Your task to perform on an android device: turn on priority inbox in the gmail app Image 0: 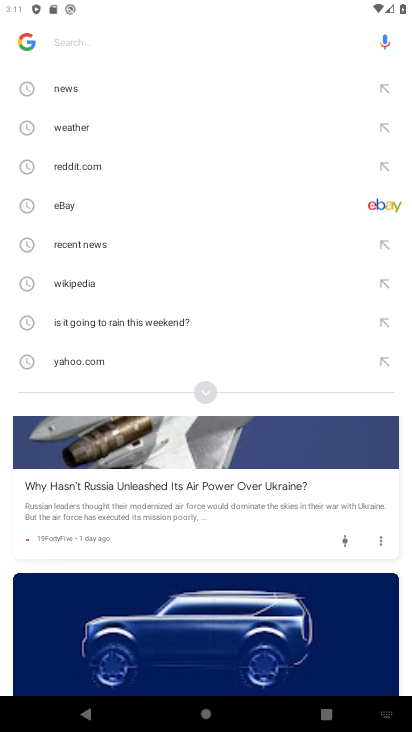
Step 0: click (229, 511)
Your task to perform on an android device: turn on priority inbox in the gmail app Image 1: 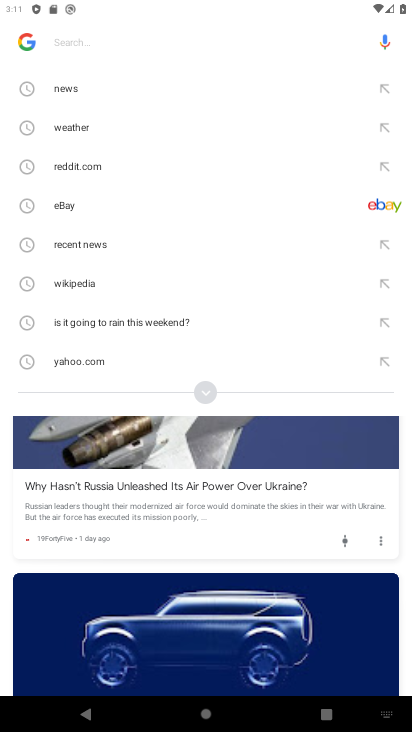
Step 1: click (229, 511)
Your task to perform on an android device: turn on priority inbox in the gmail app Image 2: 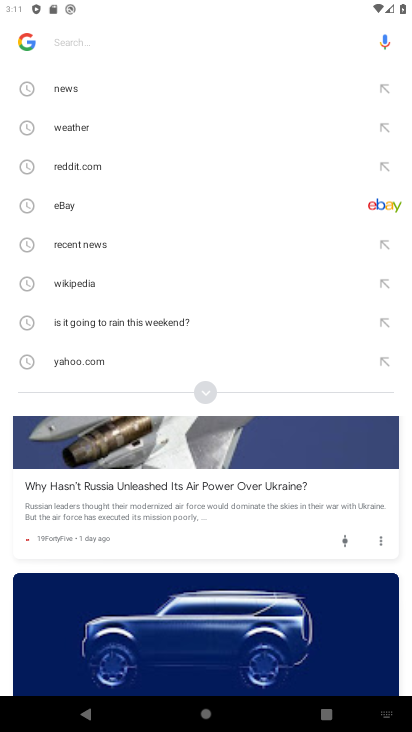
Step 2: click (229, 511)
Your task to perform on an android device: turn on priority inbox in the gmail app Image 3: 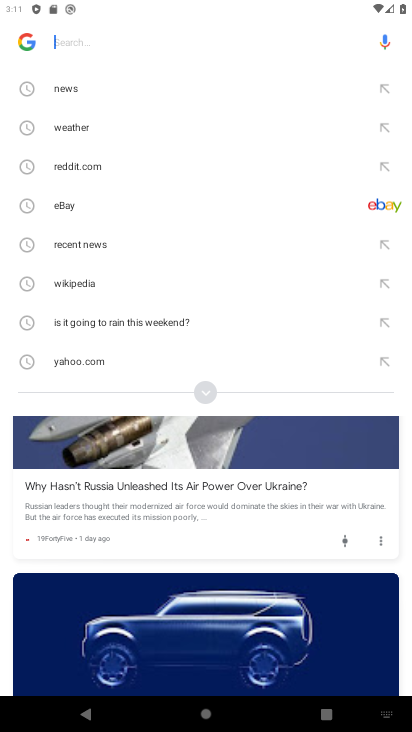
Step 3: click (229, 511)
Your task to perform on an android device: turn on priority inbox in the gmail app Image 4: 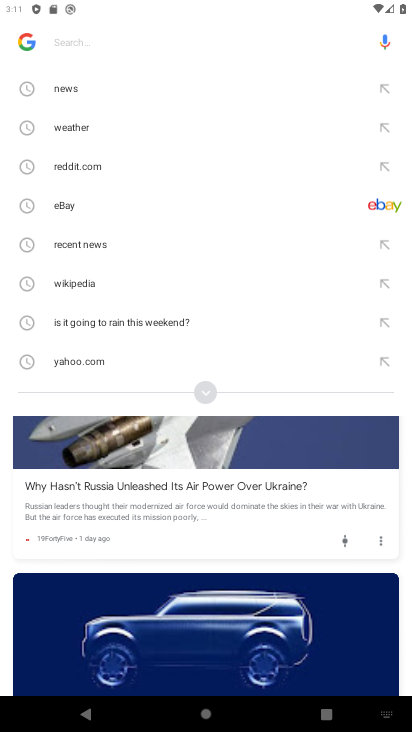
Step 4: press home button
Your task to perform on an android device: turn on priority inbox in the gmail app Image 5: 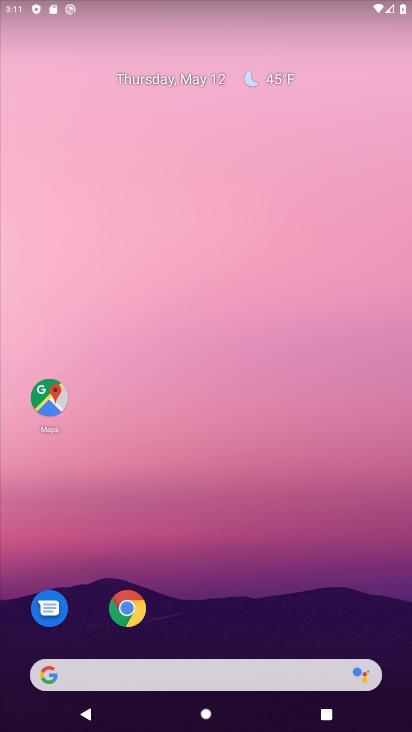
Step 5: drag from (209, 635) to (182, 160)
Your task to perform on an android device: turn on priority inbox in the gmail app Image 6: 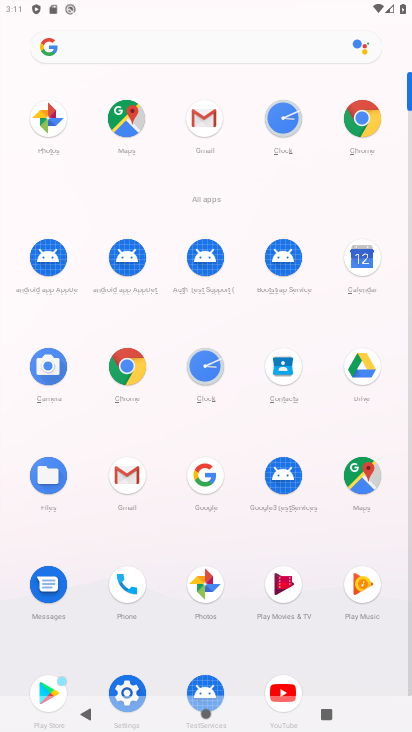
Step 6: click (203, 134)
Your task to perform on an android device: turn on priority inbox in the gmail app Image 7: 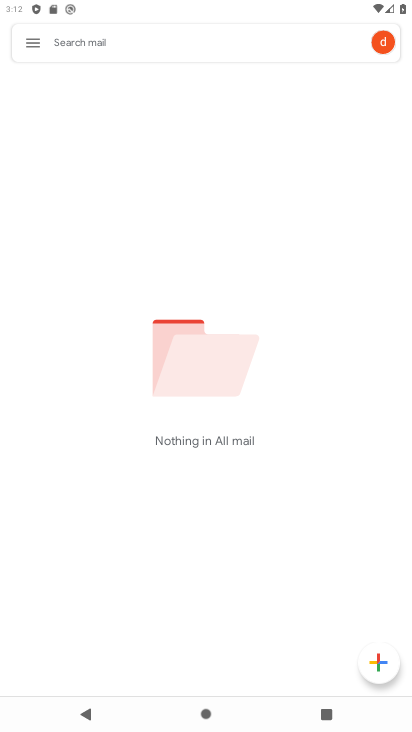
Step 7: click (203, 134)
Your task to perform on an android device: turn on priority inbox in the gmail app Image 8: 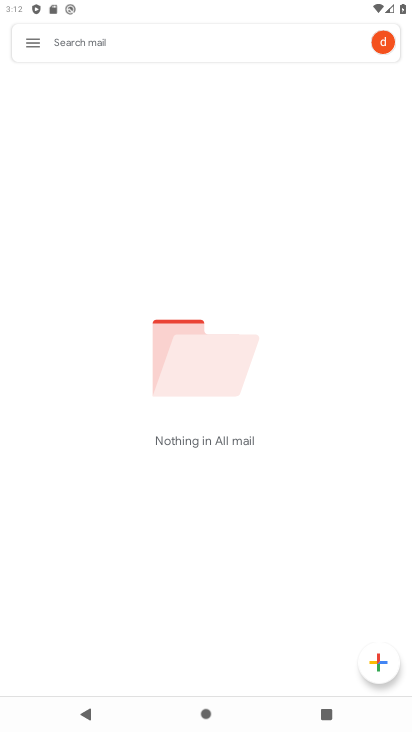
Step 8: click (43, 51)
Your task to perform on an android device: turn on priority inbox in the gmail app Image 9: 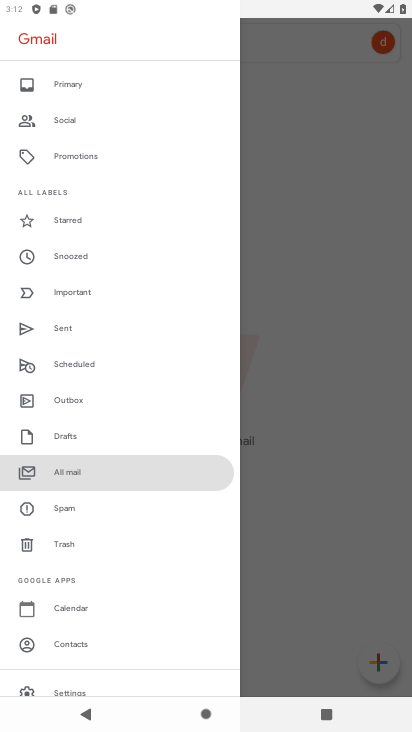
Step 9: click (81, 689)
Your task to perform on an android device: turn on priority inbox in the gmail app Image 10: 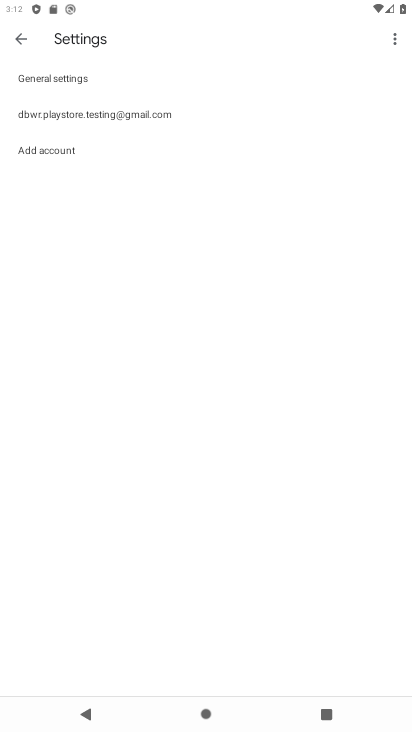
Step 10: click (176, 112)
Your task to perform on an android device: turn on priority inbox in the gmail app Image 11: 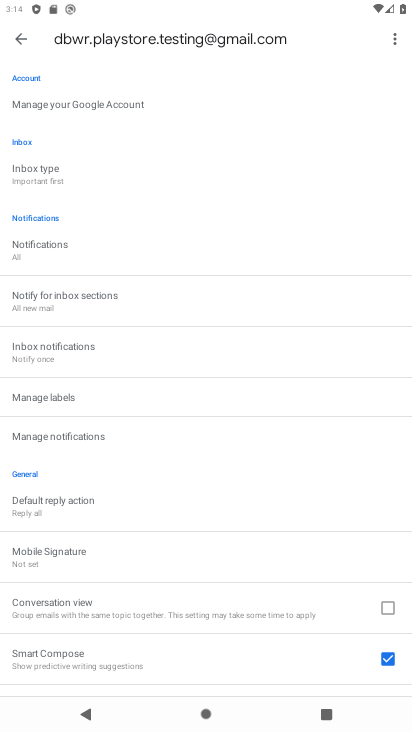
Step 11: click (92, 177)
Your task to perform on an android device: turn on priority inbox in the gmail app Image 12: 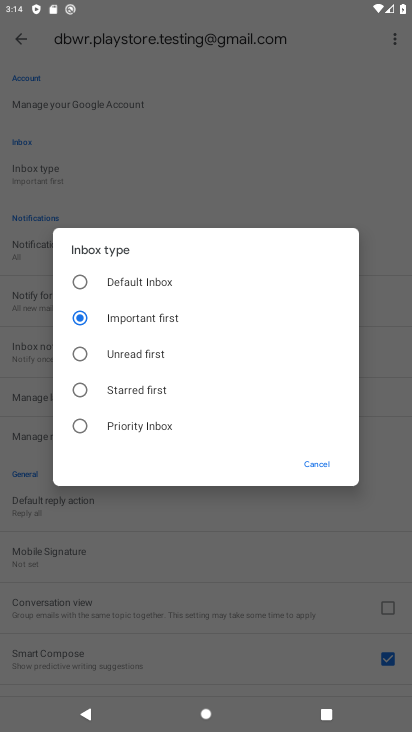
Step 12: click (85, 420)
Your task to perform on an android device: turn on priority inbox in the gmail app Image 13: 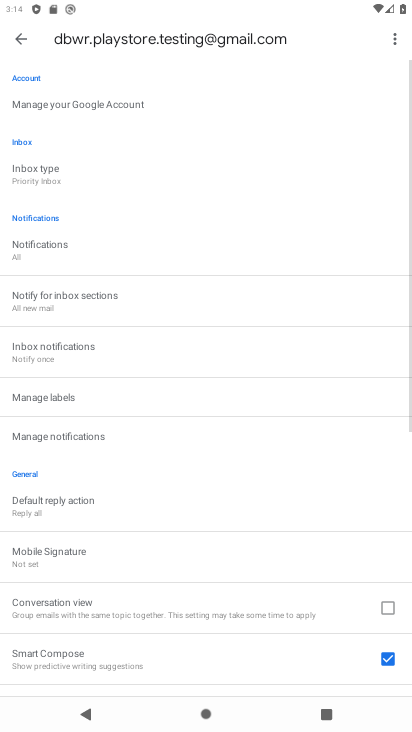
Step 13: task complete